Your task to perform on an android device: Open sound settings Image 0: 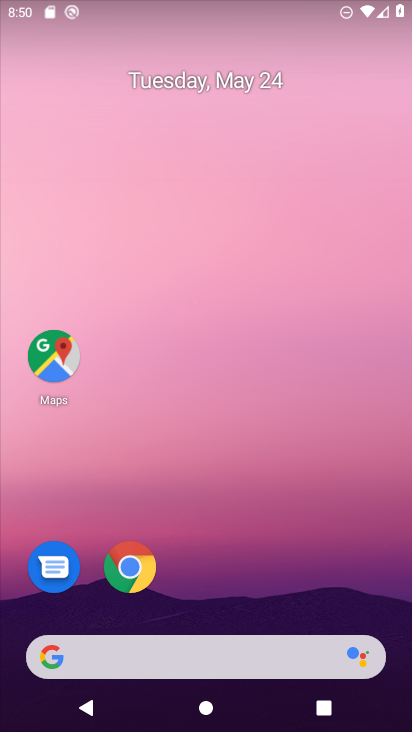
Step 0: press home button
Your task to perform on an android device: Open sound settings Image 1: 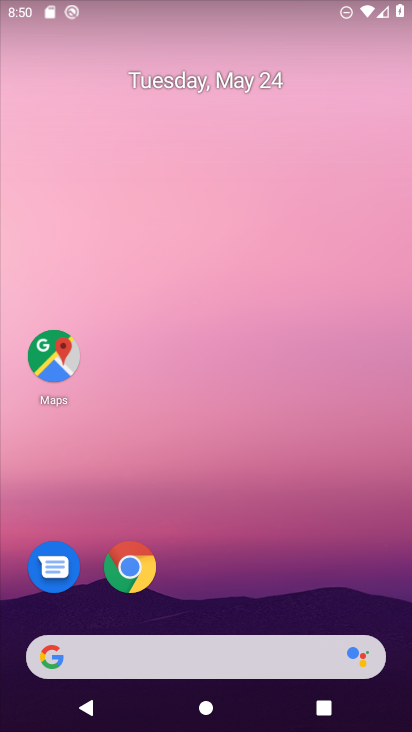
Step 1: click (318, 76)
Your task to perform on an android device: Open sound settings Image 2: 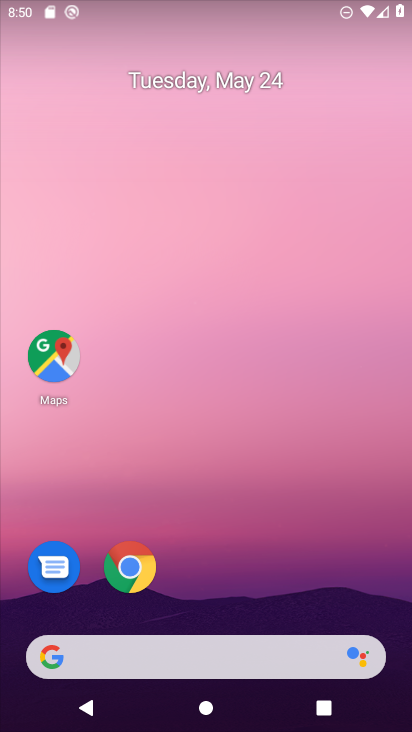
Step 2: drag from (133, 651) to (319, 50)
Your task to perform on an android device: Open sound settings Image 3: 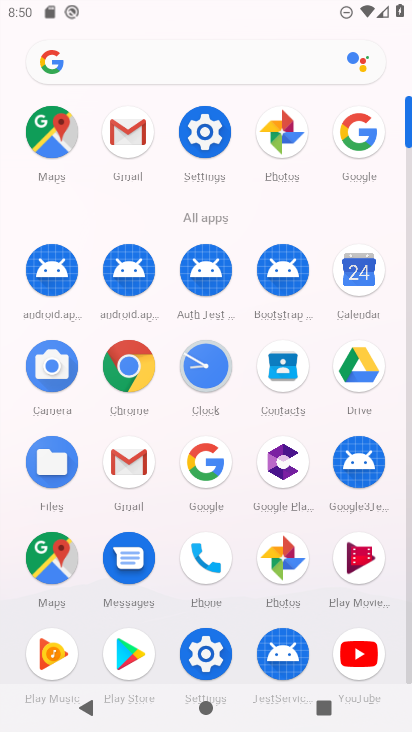
Step 3: click (213, 130)
Your task to perform on an android device: Open sound settings Image 4: 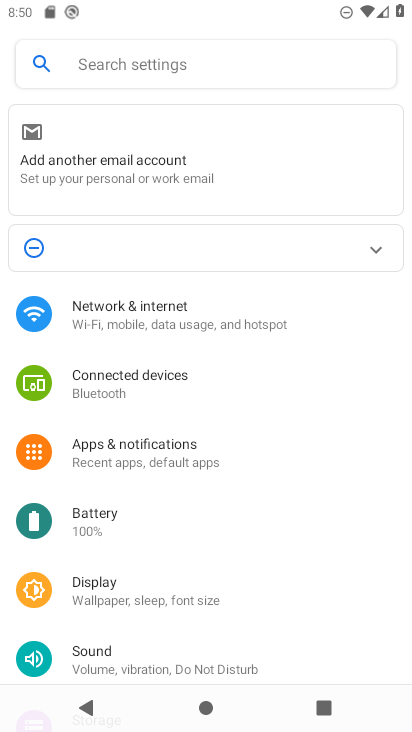
Step 4: click (126, 657)
Your task to perform on an android device: Open sound settings Image 5: 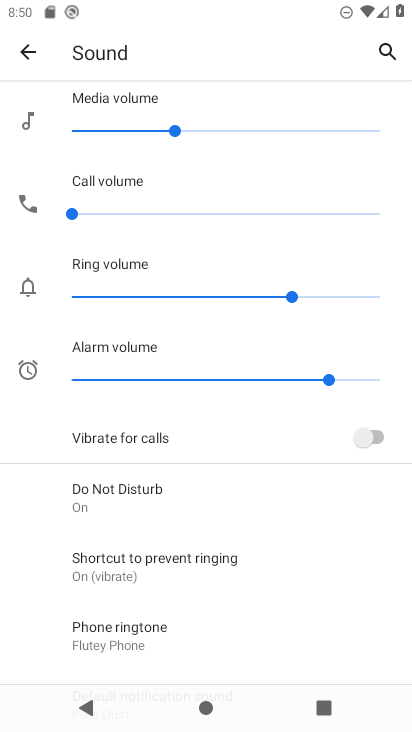
Step 5: task complete